Your task to perform on an android device: toggle notification dots Image 0: 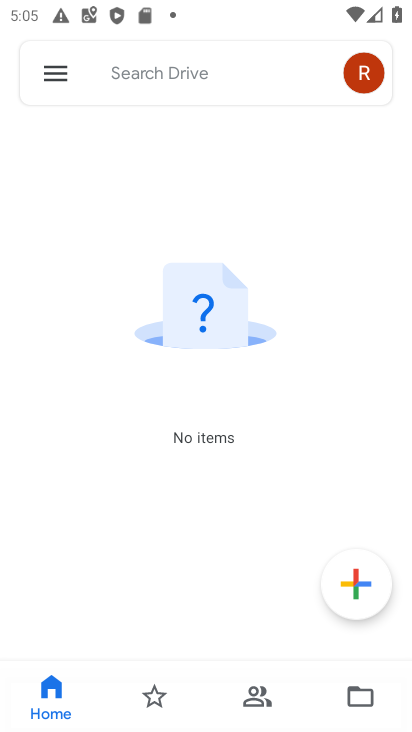
Step 0: press back button
Your task to perform on an android device: toggle notification dots Image 1: 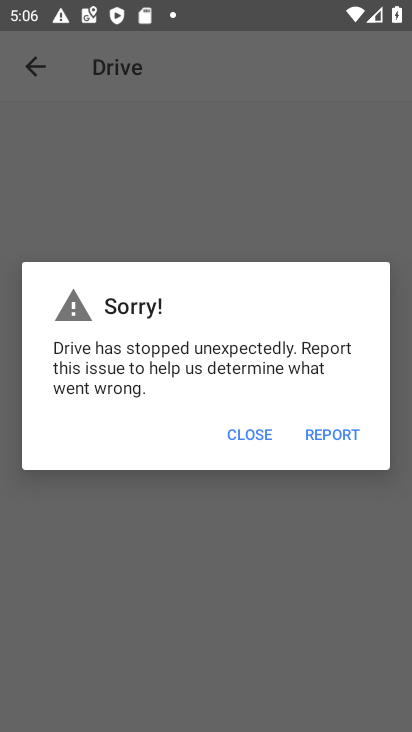
Step 1: press back button
Your task to perform on an android device: toggle notification dots Image 2: 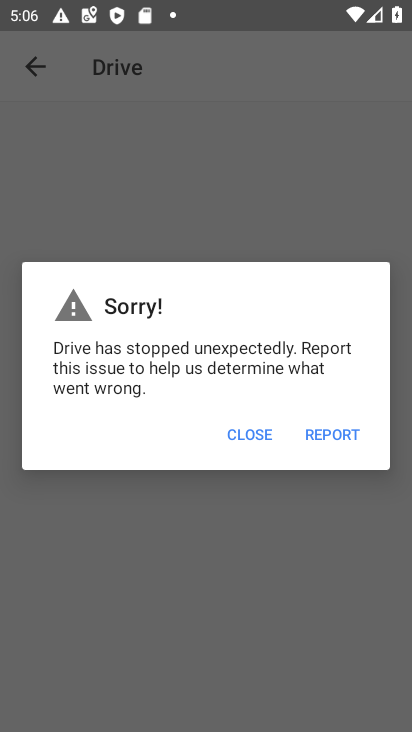
Step 2: press back button
Your task to perform on an android device: toggle notification dots Image 3: 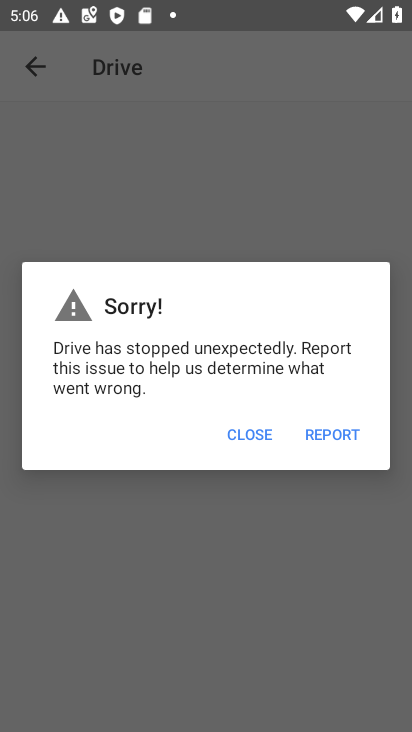
Step 3: press home button
Your task to perform on an android device: toggle notification dots Image 4: 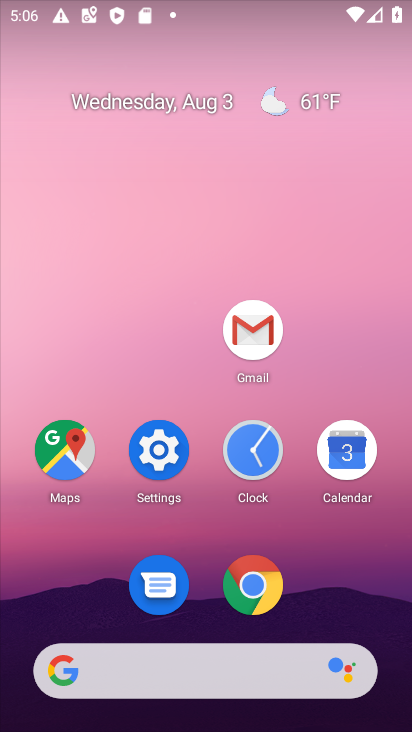
Step 4: click (129, 456)
Your task to perform on an android device: toggle notification dots Image 5: 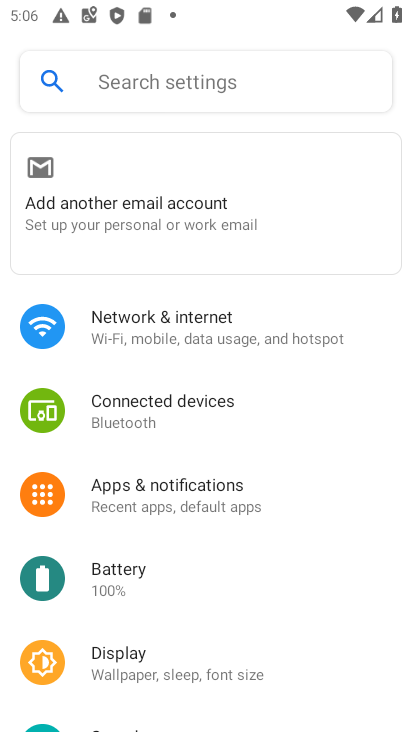
Step 5: click (176, 497)
Your task to perform on an android device: toggle notification dots Image 6: 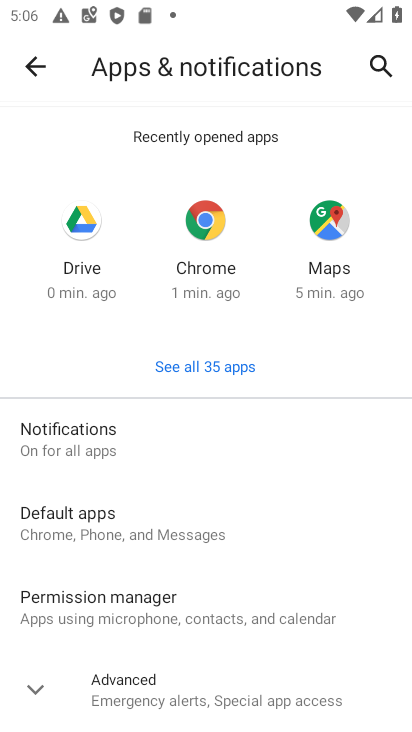
Step 6: click (50, 439)
Your task to perform on an android device: toggle notification dots Image 7: 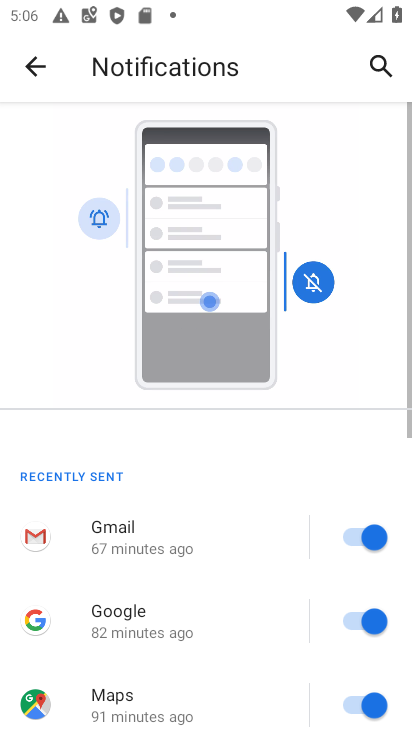
Step 7: drag from (273, 679) to (270, 251)
Your task to perform on an android device: toggle notification dots Image 8: 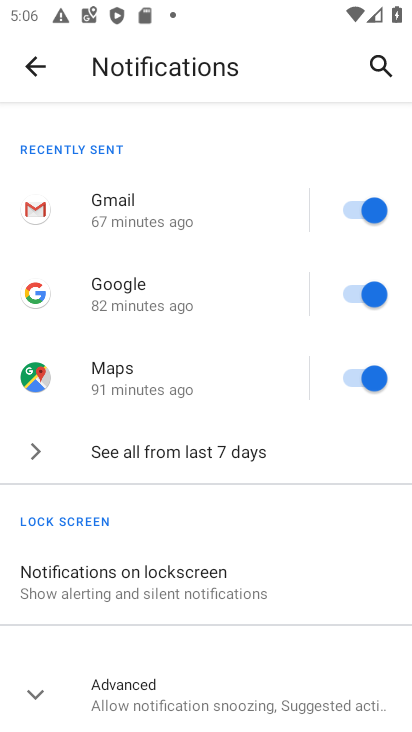
Step 8: click (32, 689)
Your task to perform on an android device: toggle notification dots Image 9: 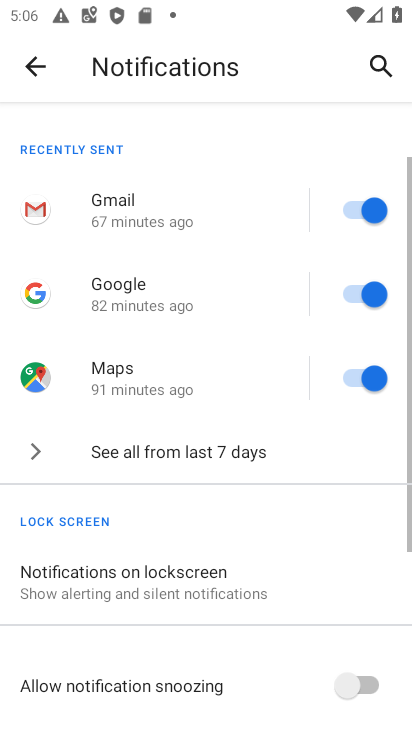
Step 9: drag from (328, 613) to (301, 127)
Your task to perform on an android device: toggle notification dots Image 10: 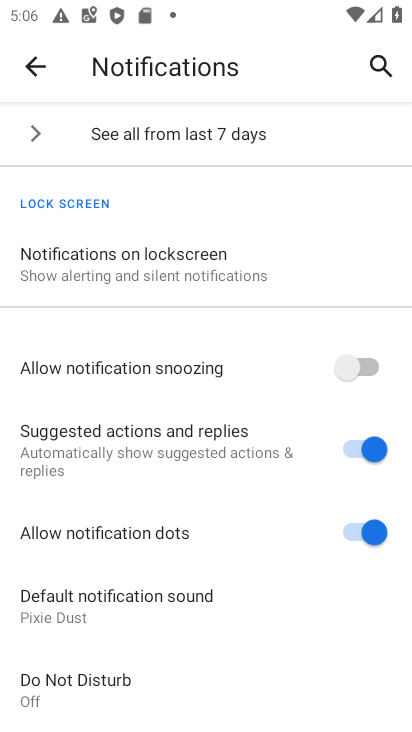
Step 10: click (368, 525)
Your task to perform on an android device: toggle notification dots Image 11: 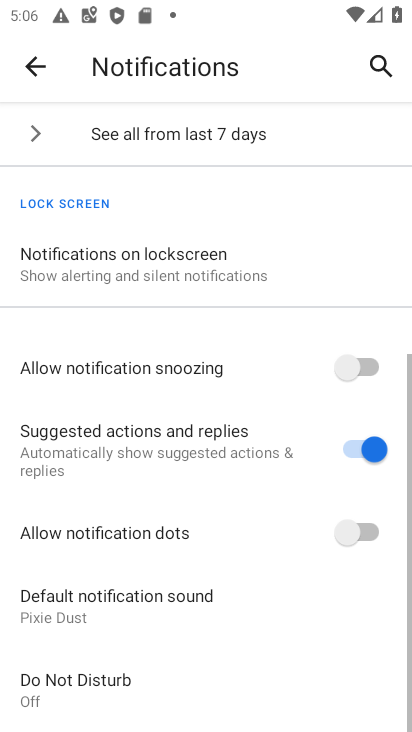
Step 11: task complete